Your task to perform on an android device: toggle priority inbox in the gmail app Image 0: 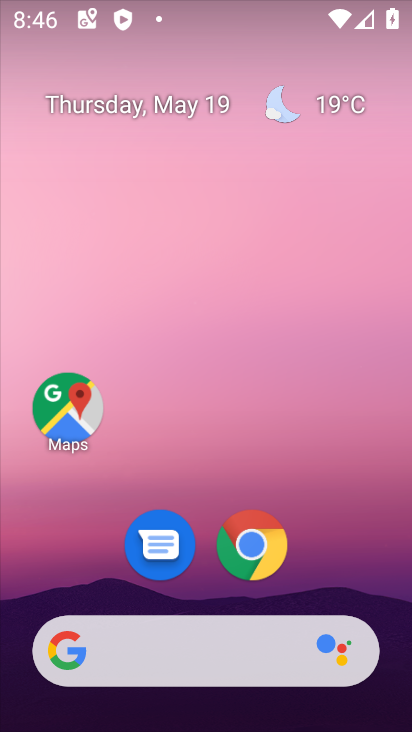
Step 0: drag from (350, 565) to (336, 114)
Your task to perform on an android device: toggle priority inbox in the gmail app Image 1: 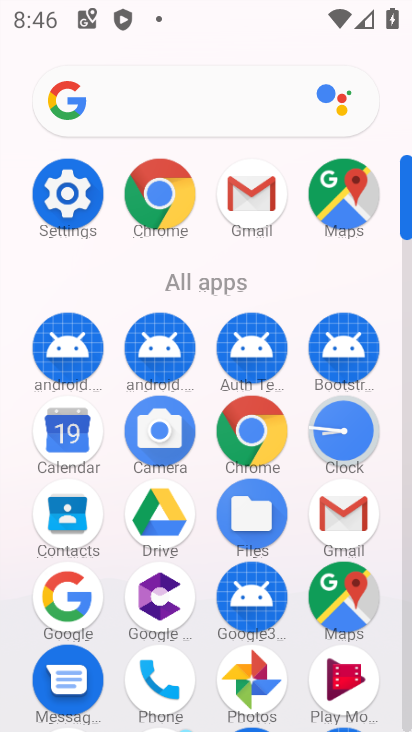
Step 1: click (280, 180)
Your task to perform on an android device: toggle priority inbox in the gmail app Image 2: 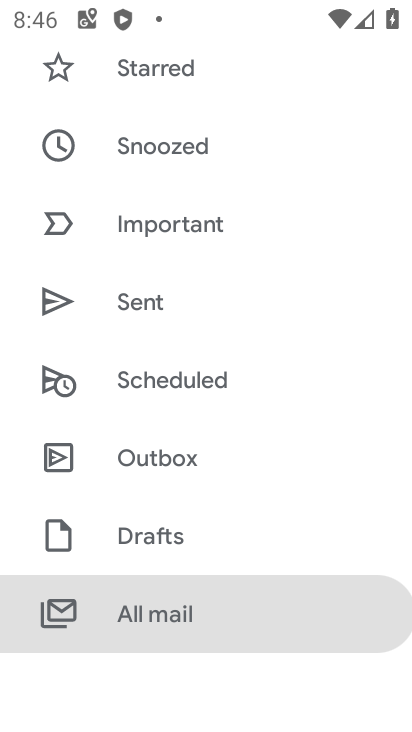
Step 2: drag from (259, 186) to (249, 340)
Your task to perform on an android device: toggle priority inbox in the gmail app Image 3: 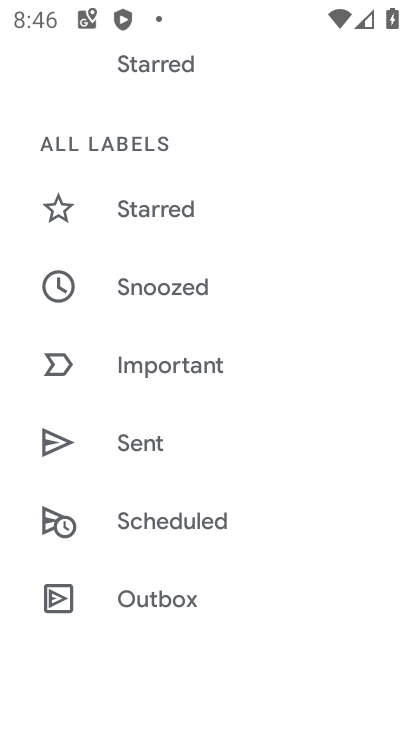
Step 3: drag from (195, 511) to (232, 162)
Your task to perform on an android device: toggle priority inbox in the gmail app Image 4: 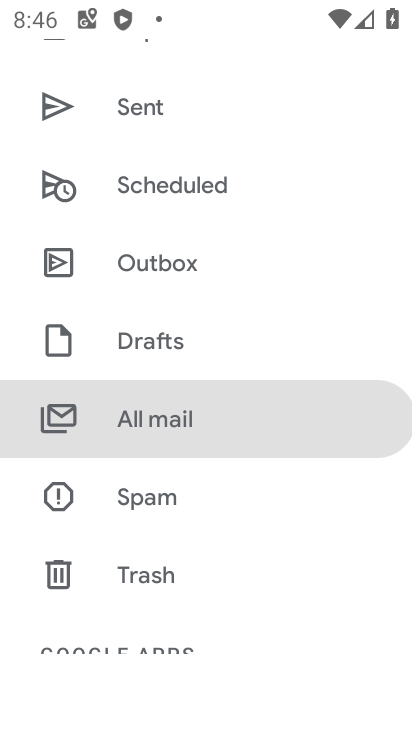
Step 4: drag from (185, 611) to (267, 339)
Your task to perform on an android device: toggle priority inbox in the gmail app Image 5: 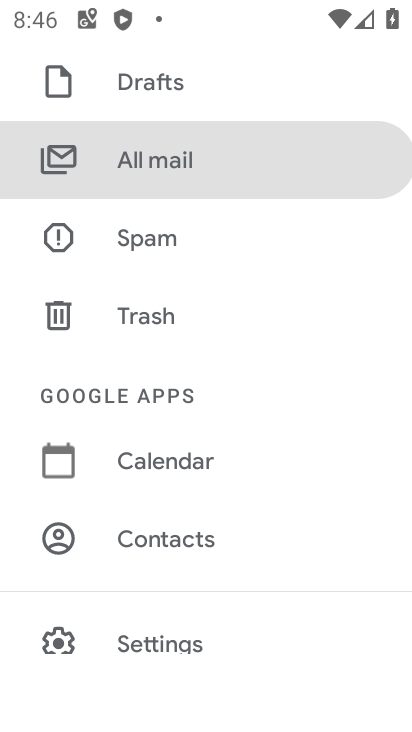
Step 5: drag from (171, 624) to (188, 374)
Your task to perform on an android device: toggle priority inbox in the gmail app Image 6: 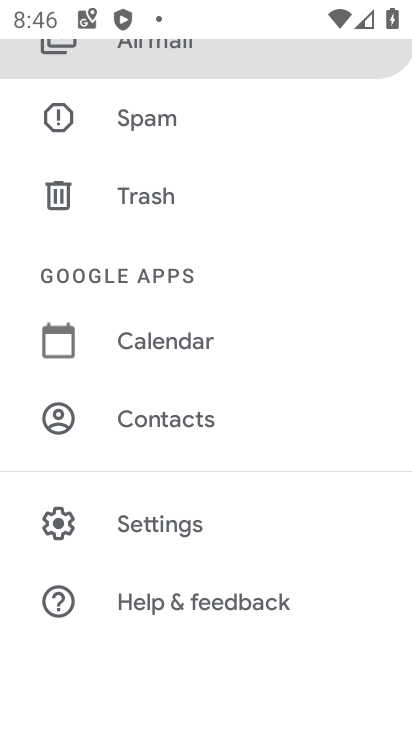
Step 6: click (175, 488)
Your task to perform on an android device: toggle priority inbox in the gmail app Image 7: 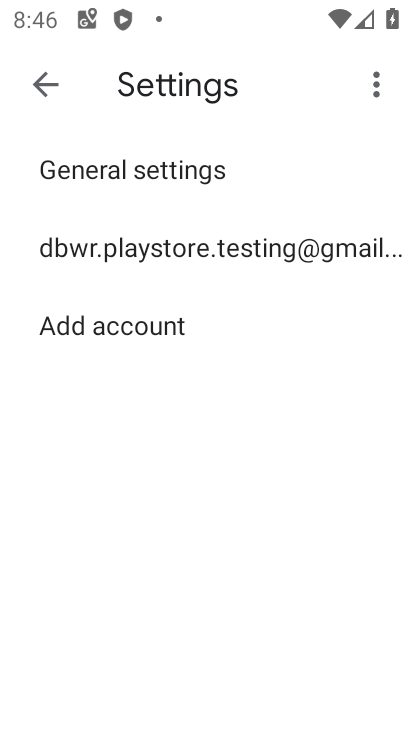
Step 7: click (87, 171)
Your task to perform on an android device: toggle priority inbox in the gmail app Image 8: 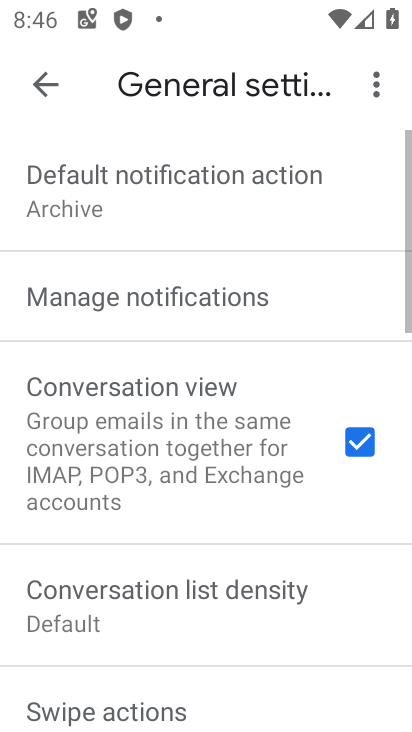
Step 8: click (50, 100)
Your task to perform on an android device: toggle priority inbox in the gmail app Image 9: 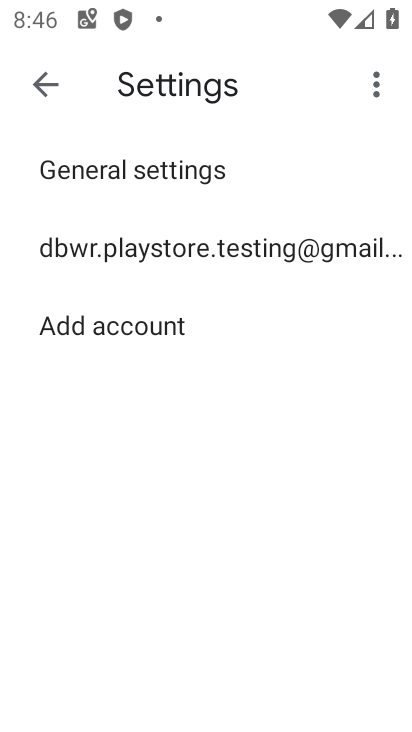
Step 9: click (143, 275)
Your task to perform on an android device: toggle priority inbox in the gmail app Image 10: 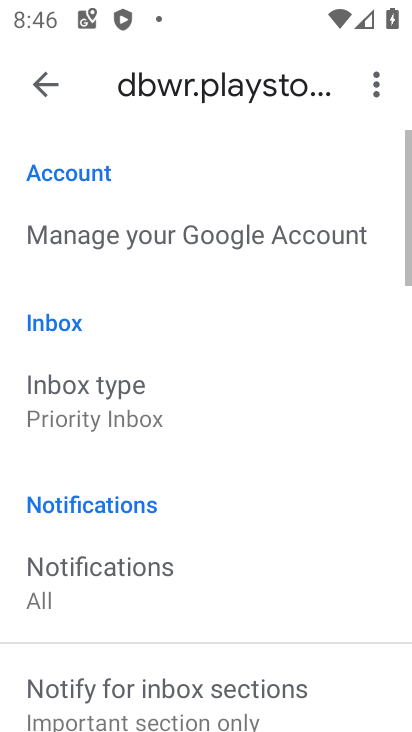
Step 10: task complete